Your task to perform on an android device: delete browsing data in the chrome app Image 0: 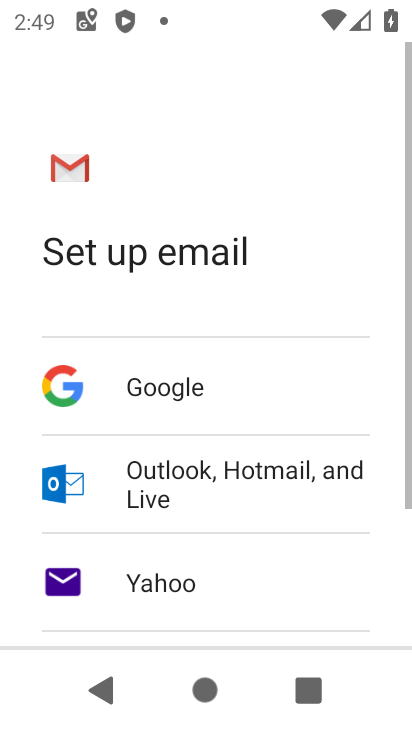
Step 0: press home button
Your task to perform on an android device: delete browsing data in the chrome app Image 1: 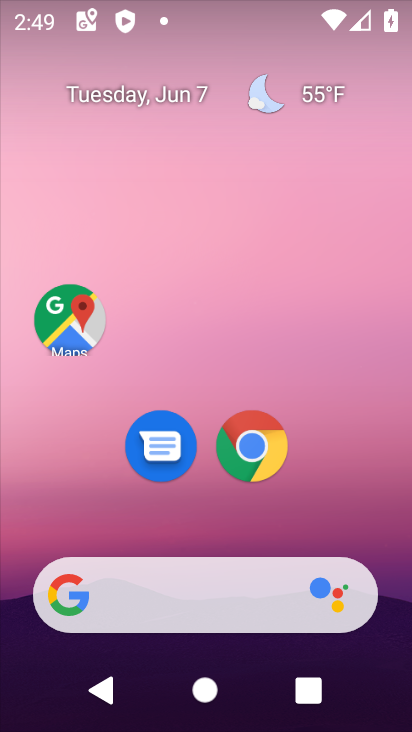
Step 1: drag from (222, 474) to (178, 0)
Your task to perform on an android device: delete browsing data in the chrome app Image 2: 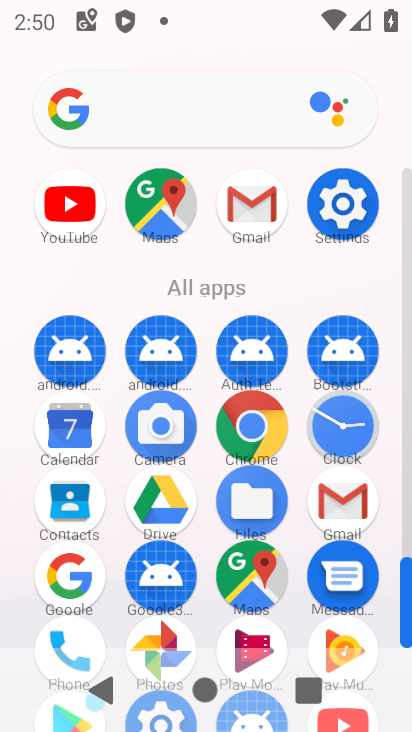
Step 2: click (252, 434)
Your task to perform on an android device: delete browsing data in the chrome app Image 3: 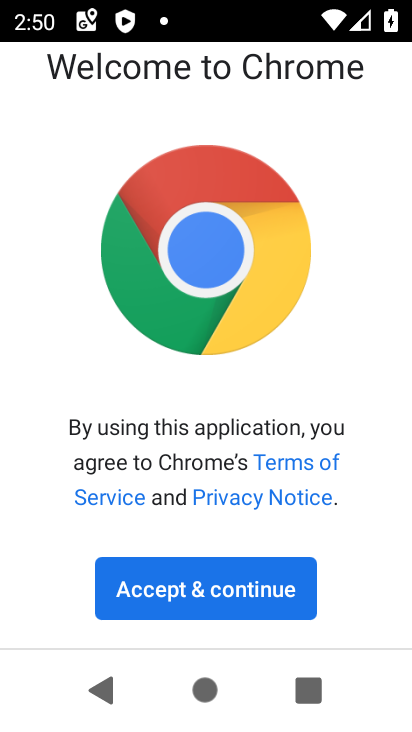
Step 3: click (212, 594)
Your task to perform on an android device: delete browsing data in the chrome app Image 4: 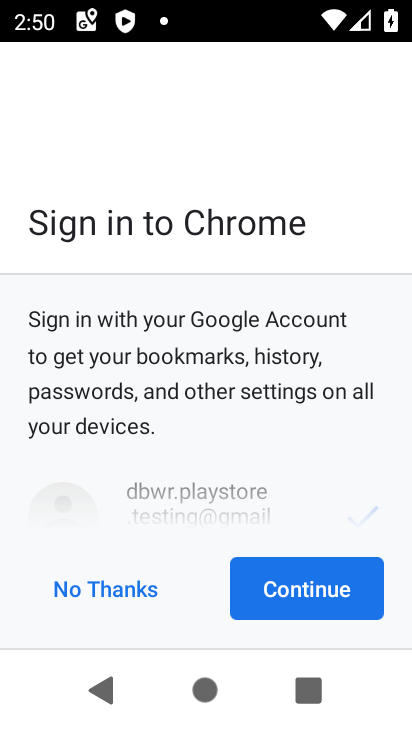
Step 4: click (283, 558)
Your task to perform on an android device: delete browsing data in the chrome app Image 5: 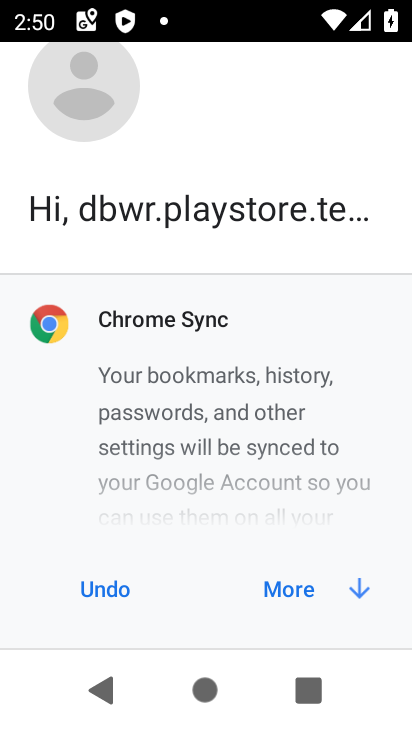
Step 5: click (305, 597)
Your task to perform on an android device: delete browsing data in the chrome app Image 6: 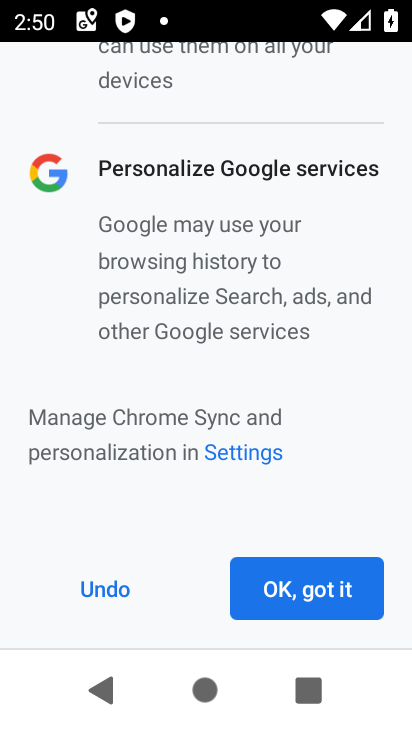
Step 6: click (334, 591)
Your task to perform on an android device: delete browsing data in the chrome app Image 7: 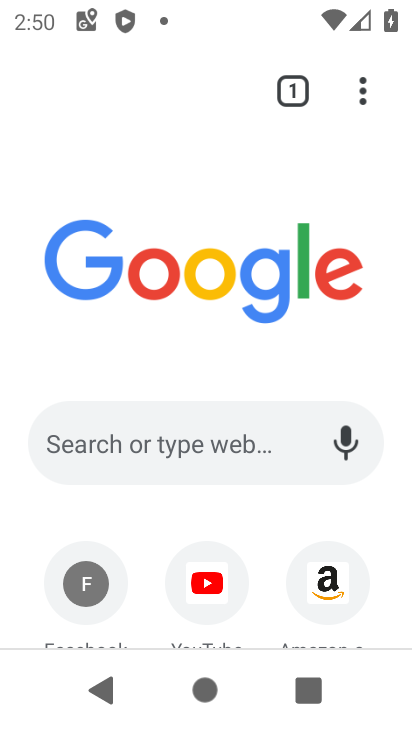
Step 7: click (360, 99)
Your task to perform on an android device: delete browsing data in the chrome app Image 8: 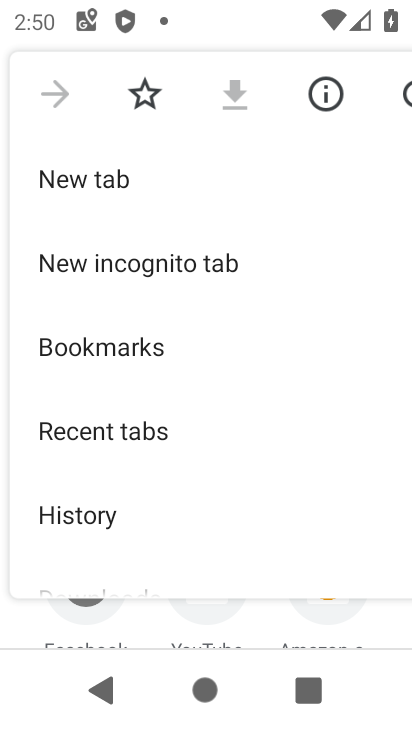
Step 8: click (93, 519)
Your task to perform on an android device: delete browsing data in the chrome app Image 9: 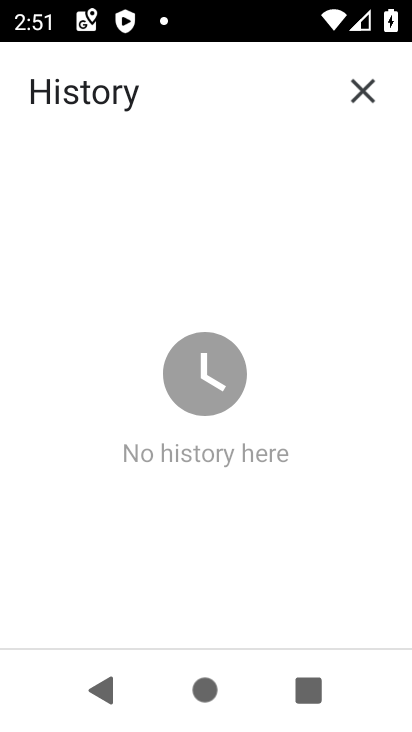
Step 9: task complete